Your task to perform on an android device: Go to Yahoo.com Image 0: 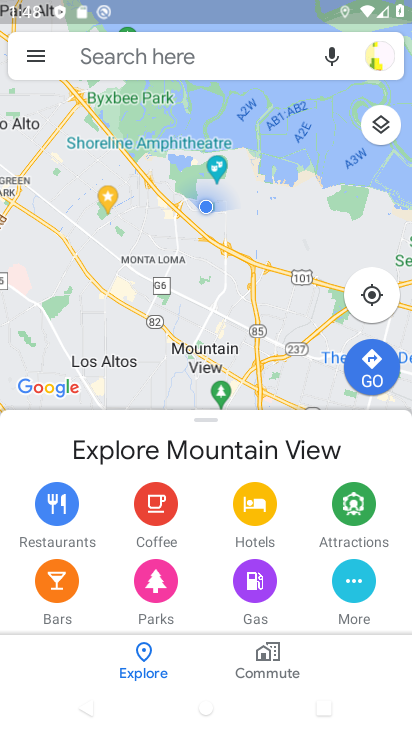
Step 0: press home button
Your task to perform on an android device: Go to Yahoo.com Image 1: 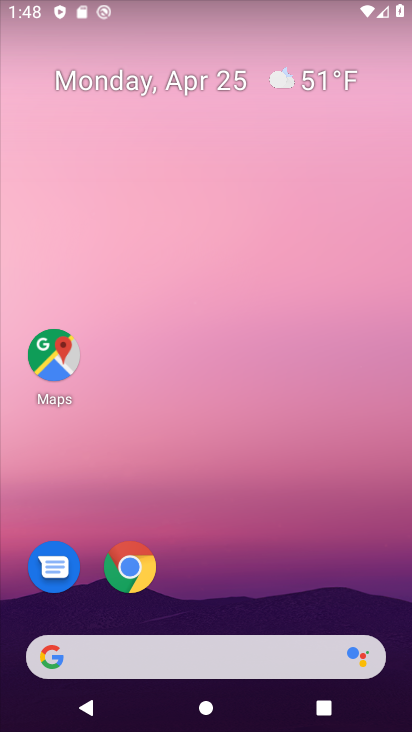
Step 1: click (139, 567)
Your task to perform on an android device: Go to Yahoo.com Image 2: 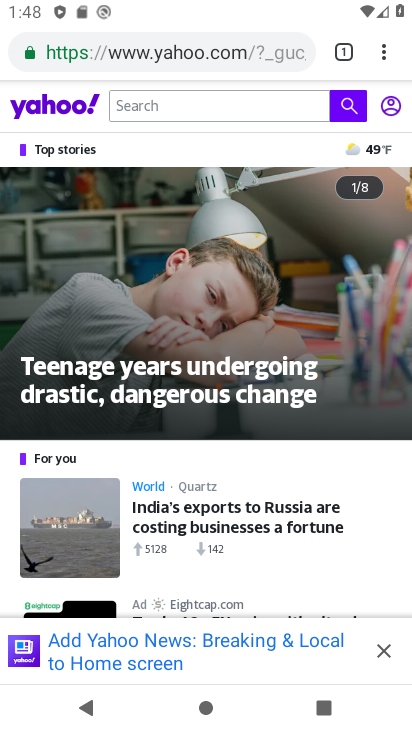
Step 2: task complete